Your task to perform on an android device: Open Google Maps Image 0: 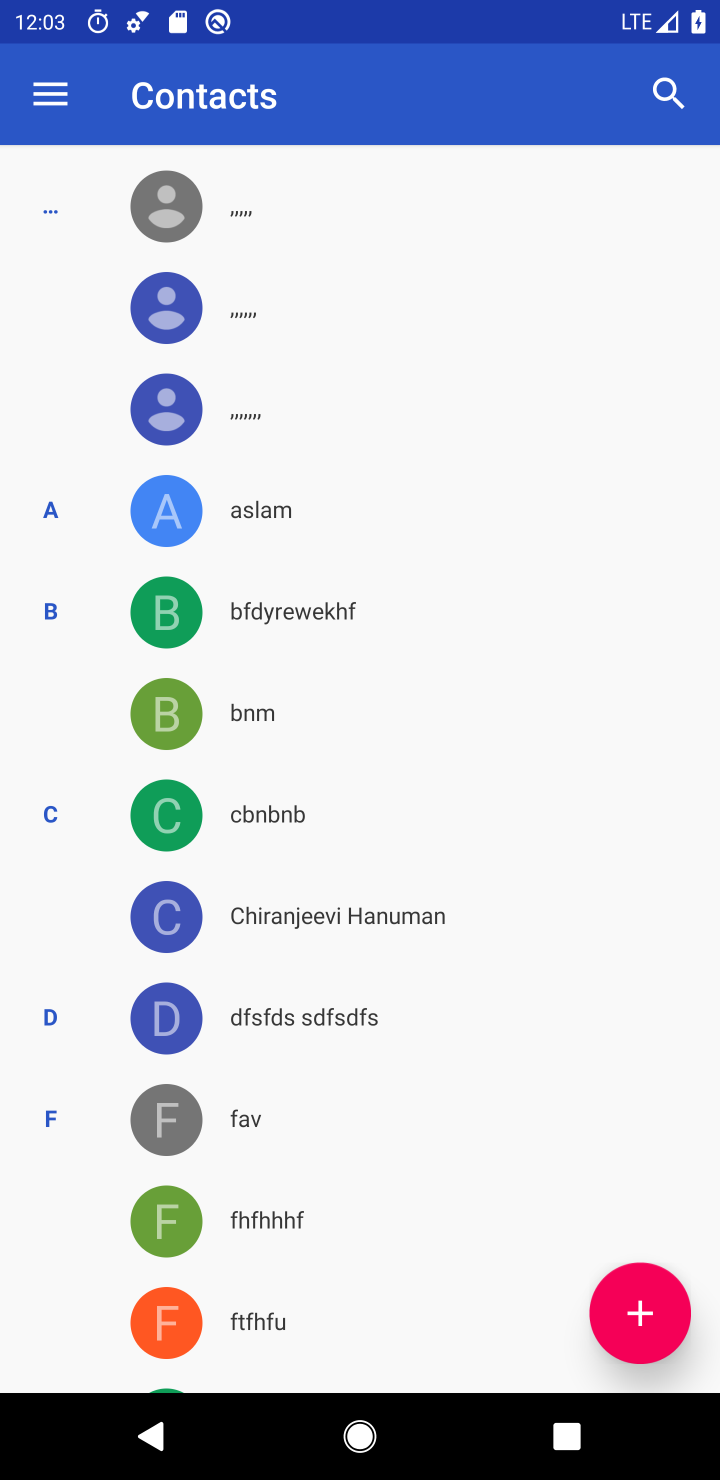
Step 0: press home button
Your task to perform on an android device: Open Google Maps Image 1: 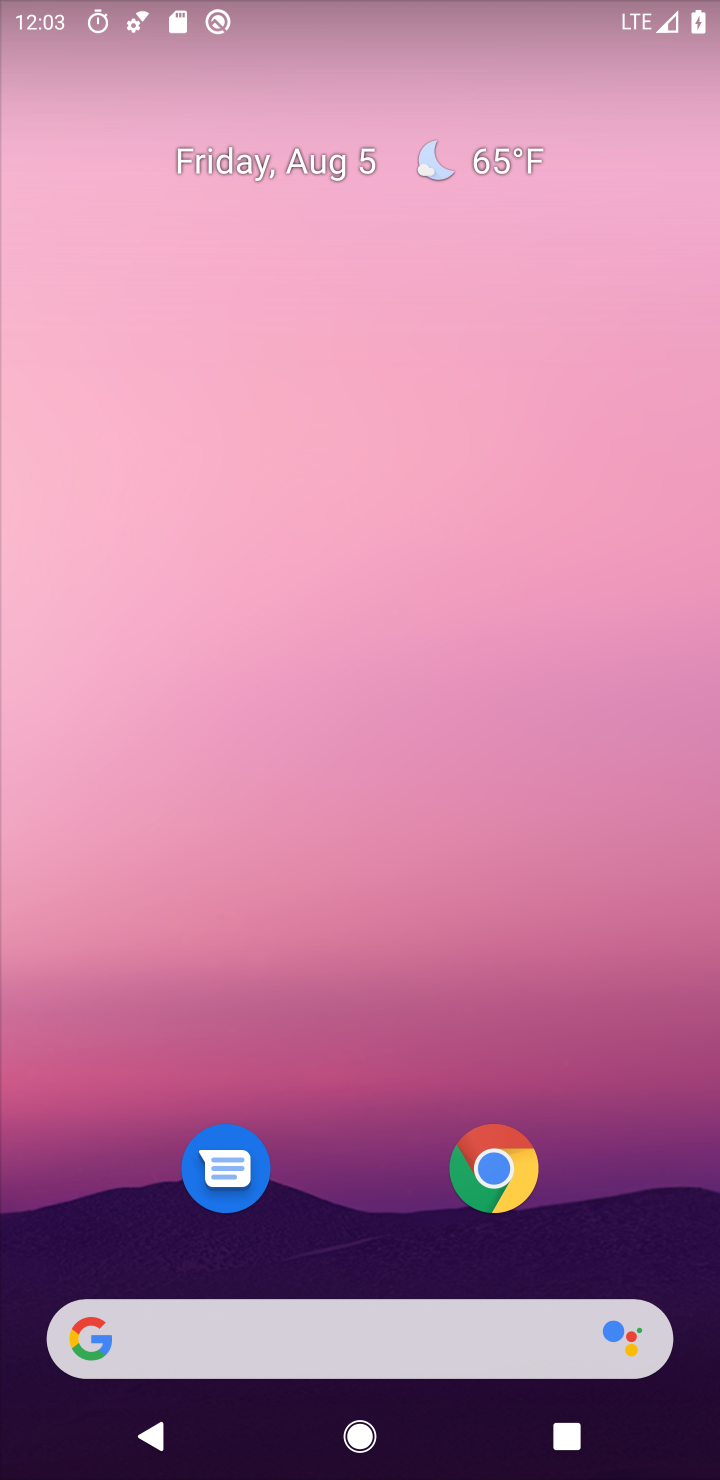
Step 1: drag from (339, 1123) to (400, 47)
Your task to perform on an android device: Open Google Maps Image 2: 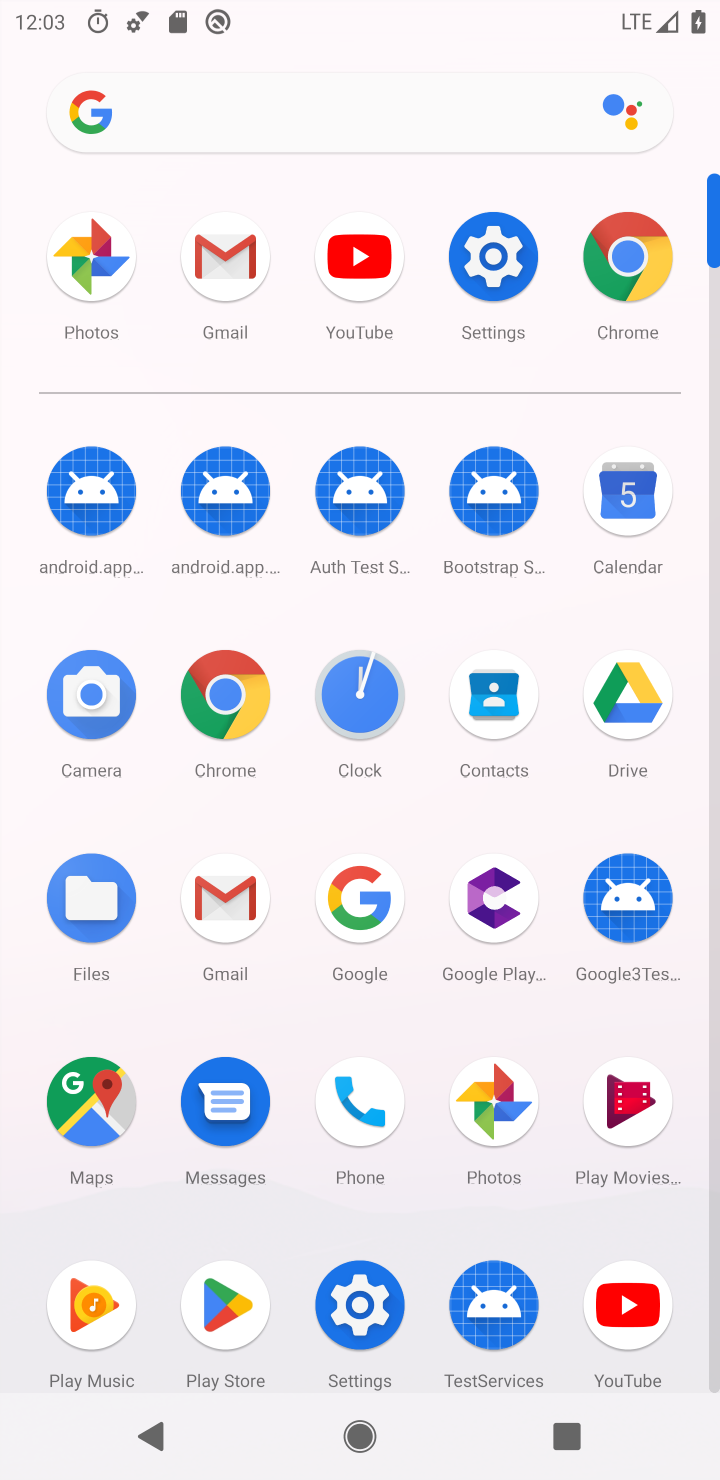
Step 2: click (78, 1128)
Your task to perform on an android device: Open Google Maps Image 3: 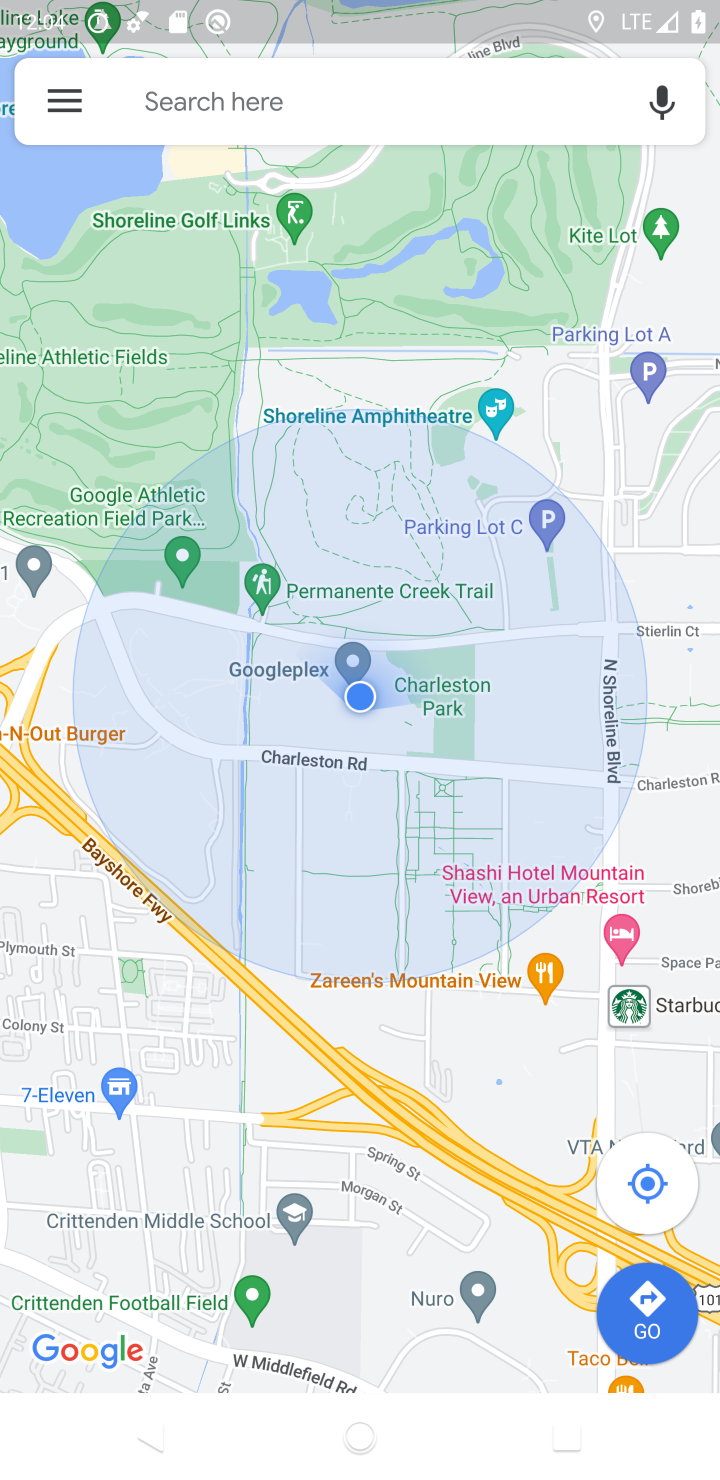
Step 3: task complete